Your task to perform on an android device: change the clock display to digital Image 0: 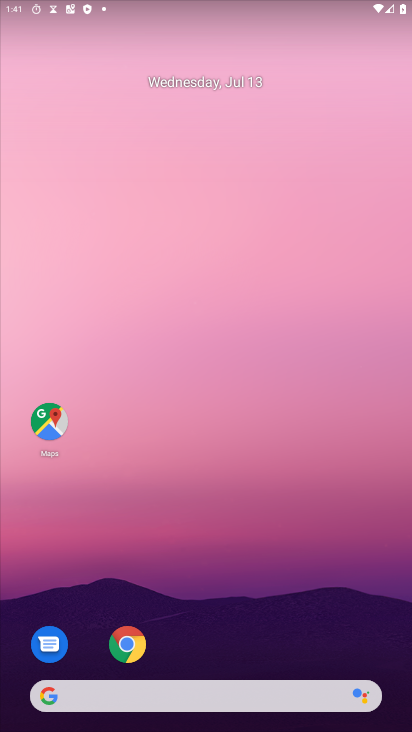
Step 0: press home button
Your task to perform on an android device: change the clock display to digital Image 1: 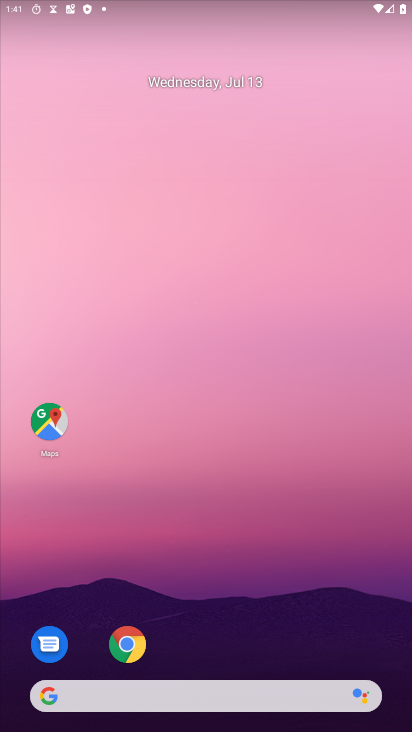
Step 1: drag from (285, 546) to (304, 152)
Your task to perform on an android device: change the clock display to digital Image 2: 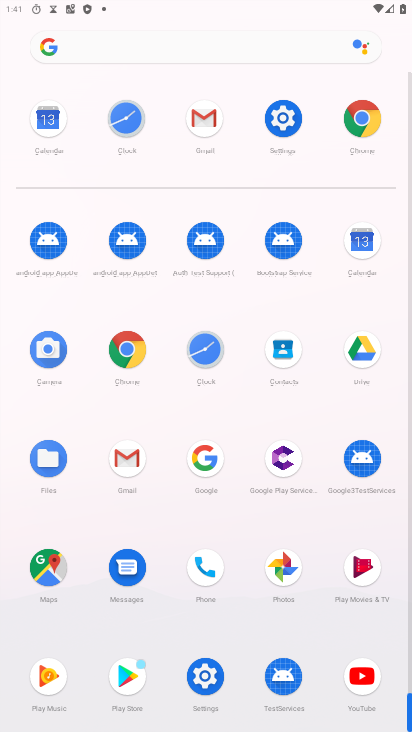
Step 2: click (213, 349)
Your task to perform on an android device: change the clock display to digital Image 3: 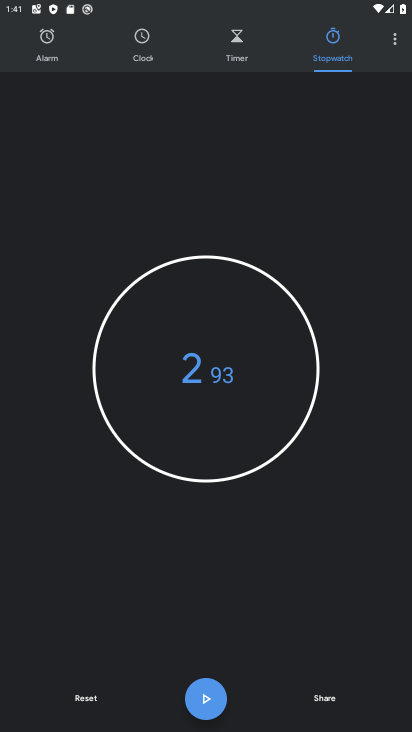
Step 3: click (396, 39)
Your task to perform on an android device: change the clock display to digital Image 4: 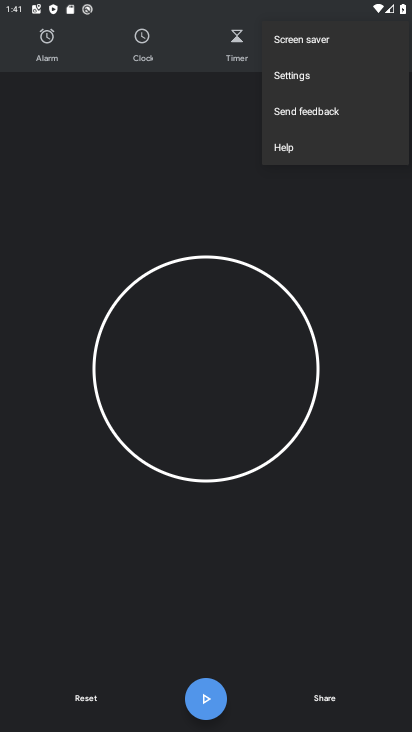
Step 4: click (306, 75)
Your task to perform on an android device: change the clock display to digital Image 5: 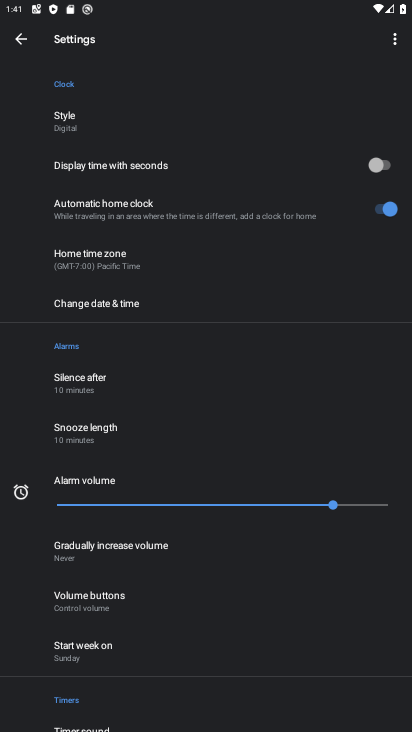
Step 5: click (63, 121)
Your task to perform on an android device: change the clock display to digital Image 6: 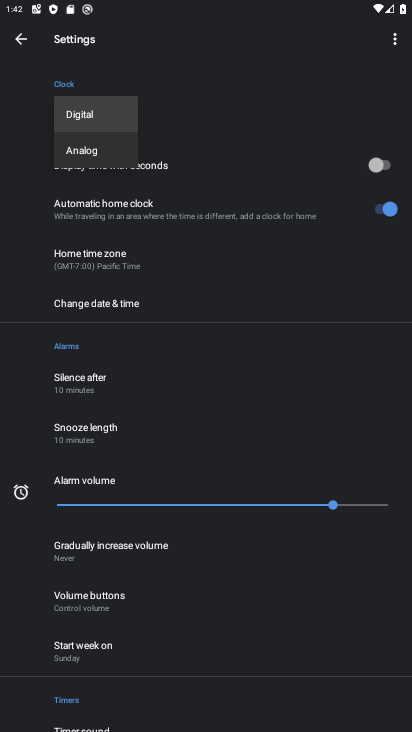
Step 6: task complete